Your task to perform on an android device: Search for usb-a on newegg.com, select the first entry, and add it to the cart. Image 0: 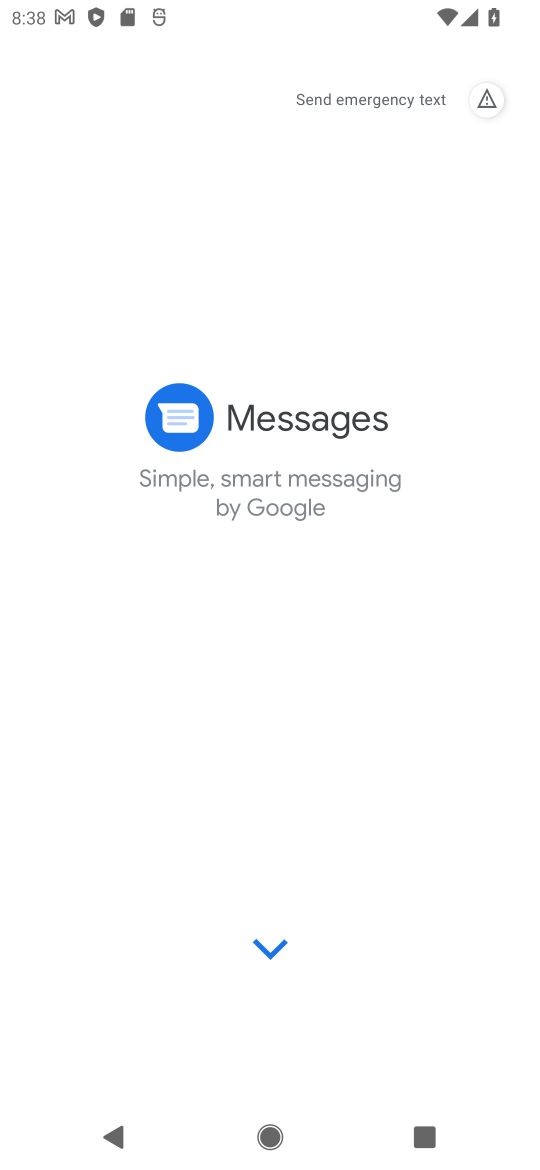
Step 0: press home button
Your task to perform on an android device: Search for usb-a on newegg.com, select the first entry, and add it to the cart. Image 1: 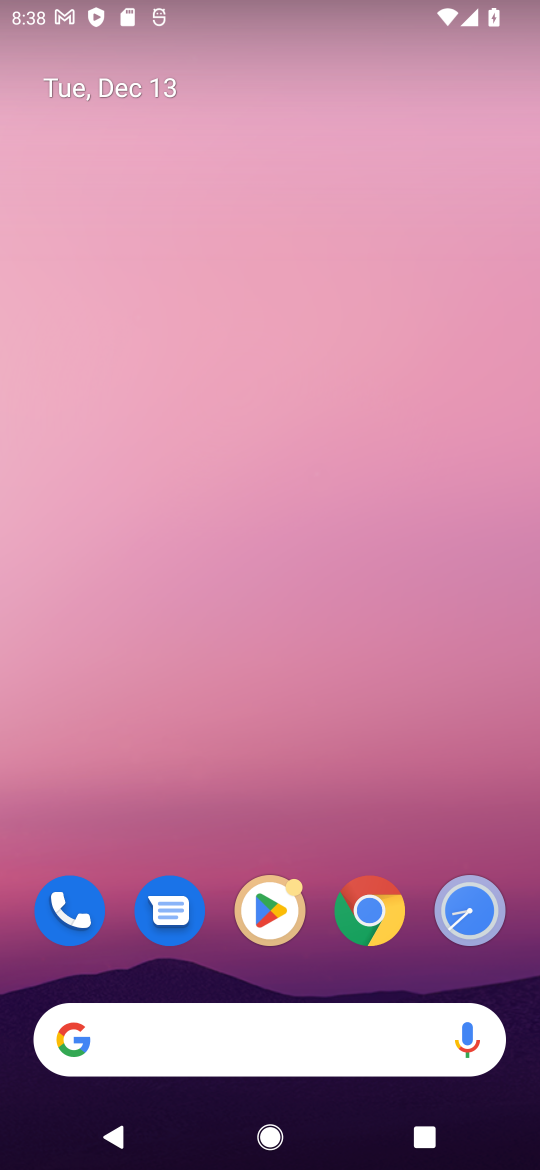
Step 1: drag from (199, 1048) to (192, 335)
Your task to perform on an android device: Search for usb-a on newegg.com, select the first entry, and add it to the cart. Image 2: 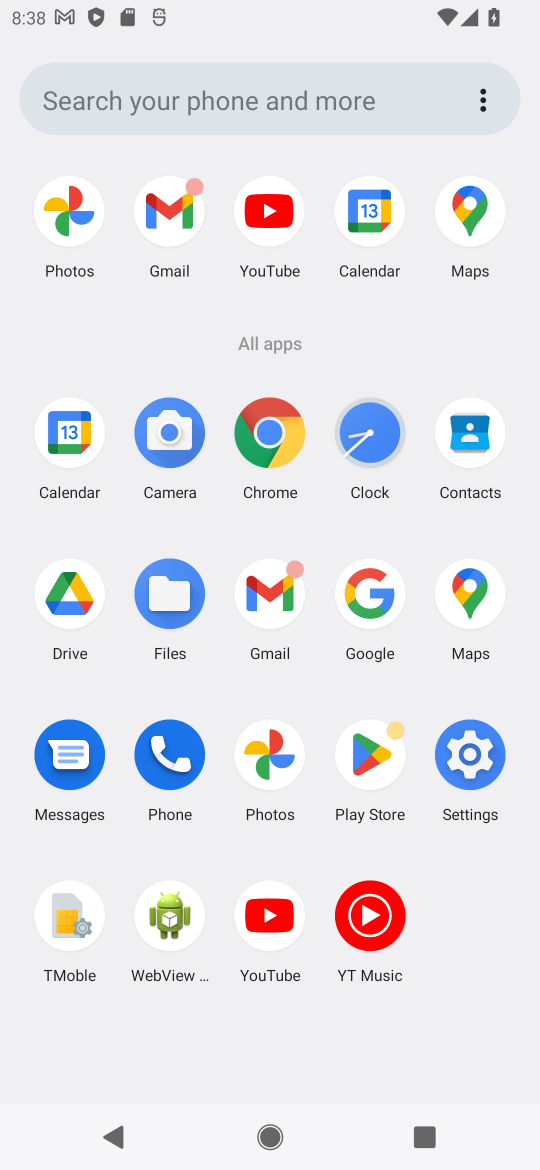
Step 2: click (360, 583)
Your task to perform on an android device: Search for usb-a on newegg.com, select the first entry, and add it to the cart. Image 3: 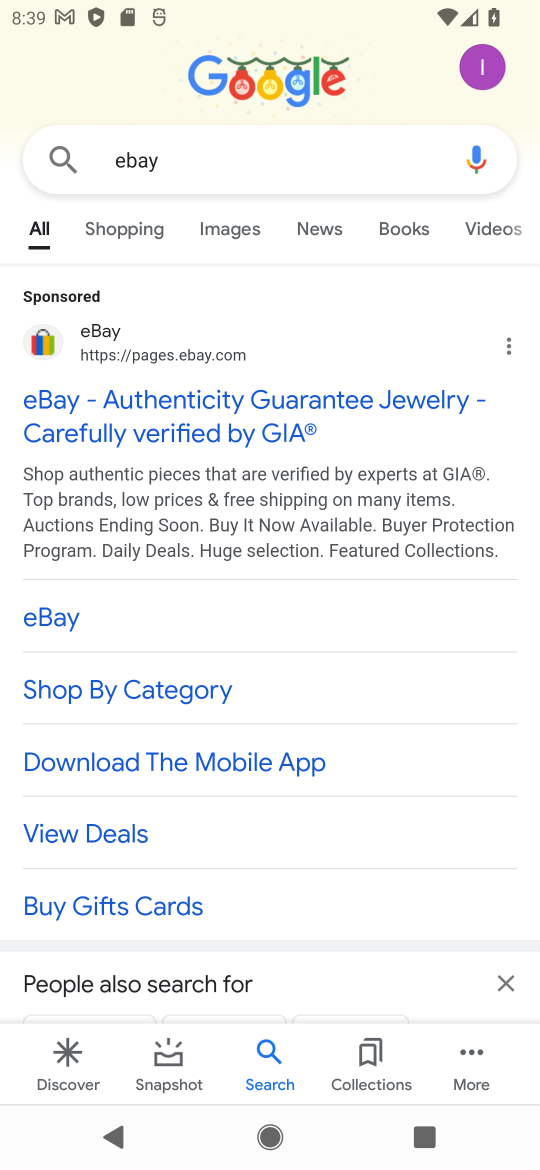
Step 3: click (121, 162)
Your task to perform on an android device: Search for usb-a on newegg.com, select the first entry, and add it to the cart. Image 4: 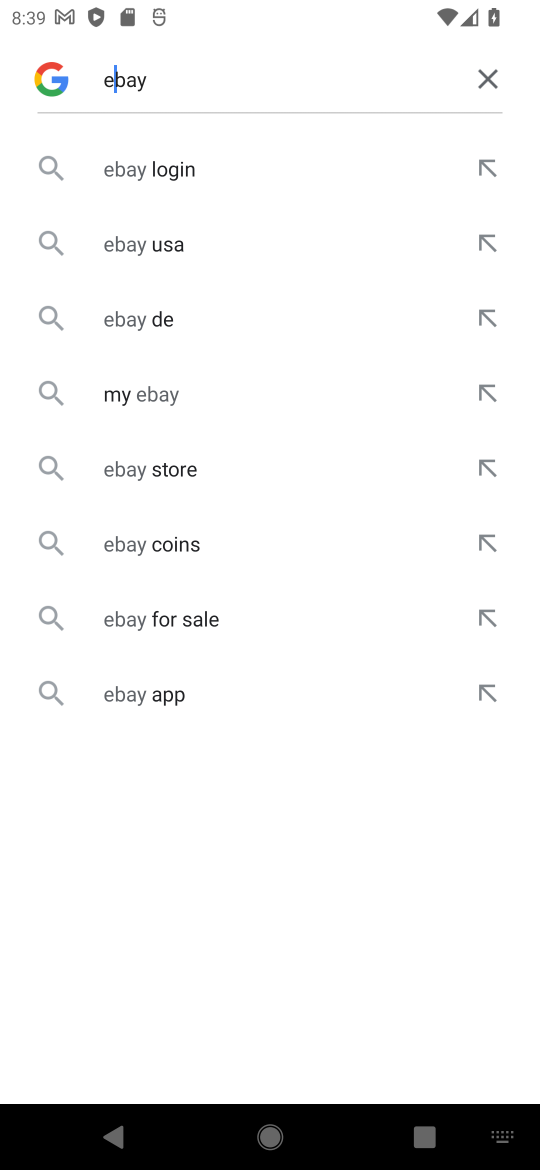
Step 4: click (498, 72)
Your task to perform on an android device: Search for usb-a on newegg.com, select the first entry, and add it to the cart. Image 5: 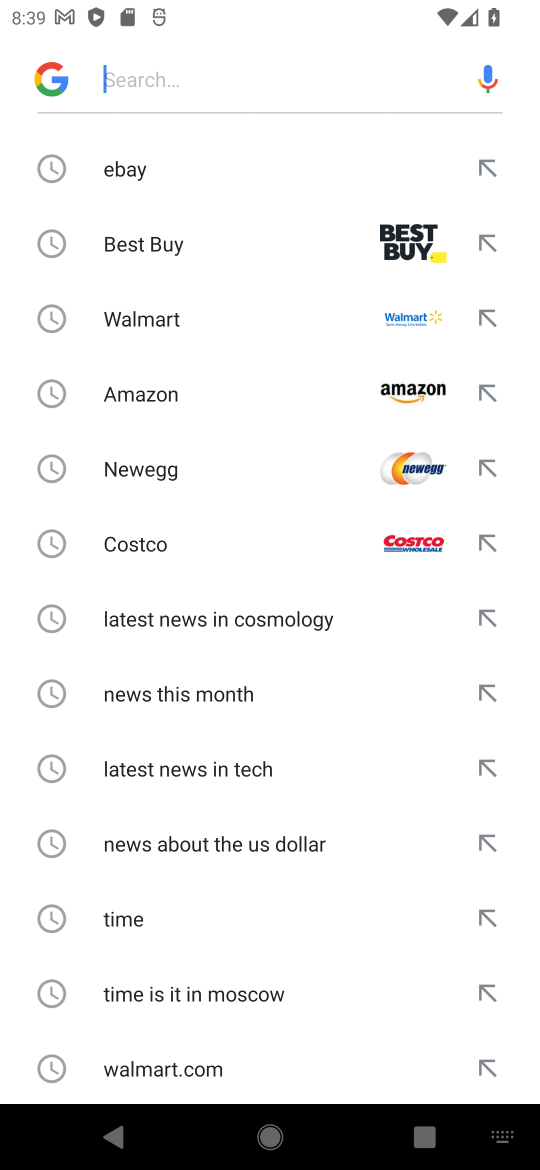
Step 5: click (161, 462)
Your task to perform on an android device: Search for usb-a on newegg.com, select the first entry, and add it to the cart. Image 6: 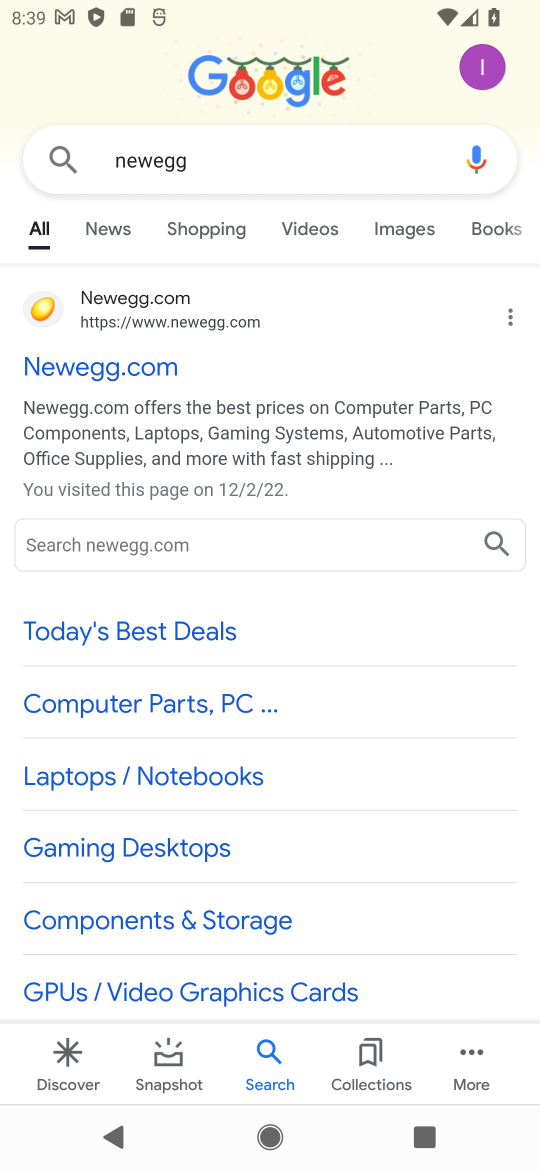
Step 6: click (76, 363)
Your task to perform on an android device: Search for usb-a on newegg.com, select the first entry, and add it to the cart. Image 7: 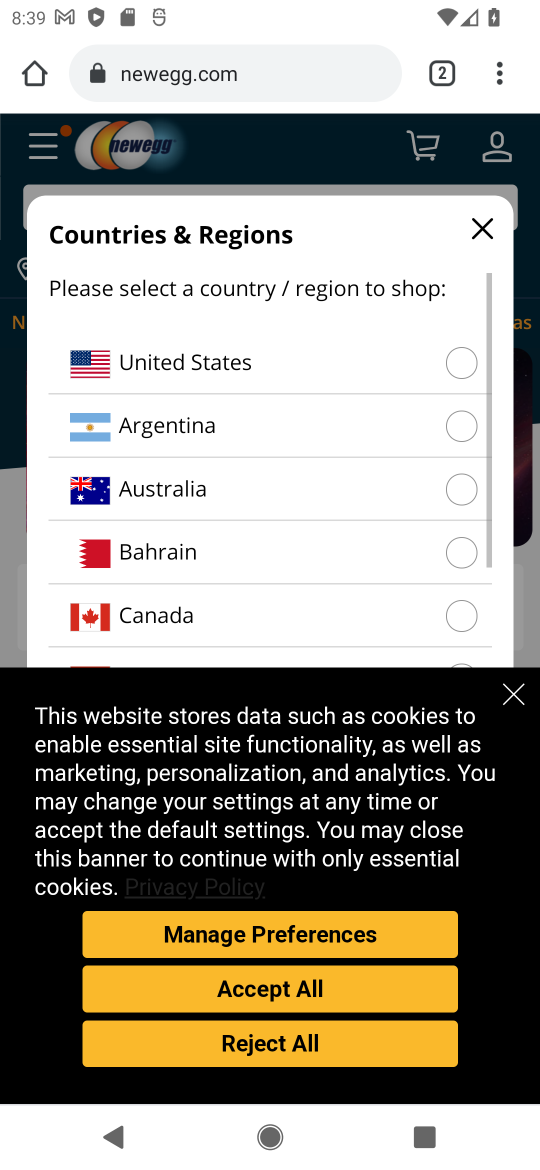
Step 7: click (476, 230)
Your task to perform on an android device: Search for usb-a on newegg.com, select the first entry, and add it to the cart. Image 8: 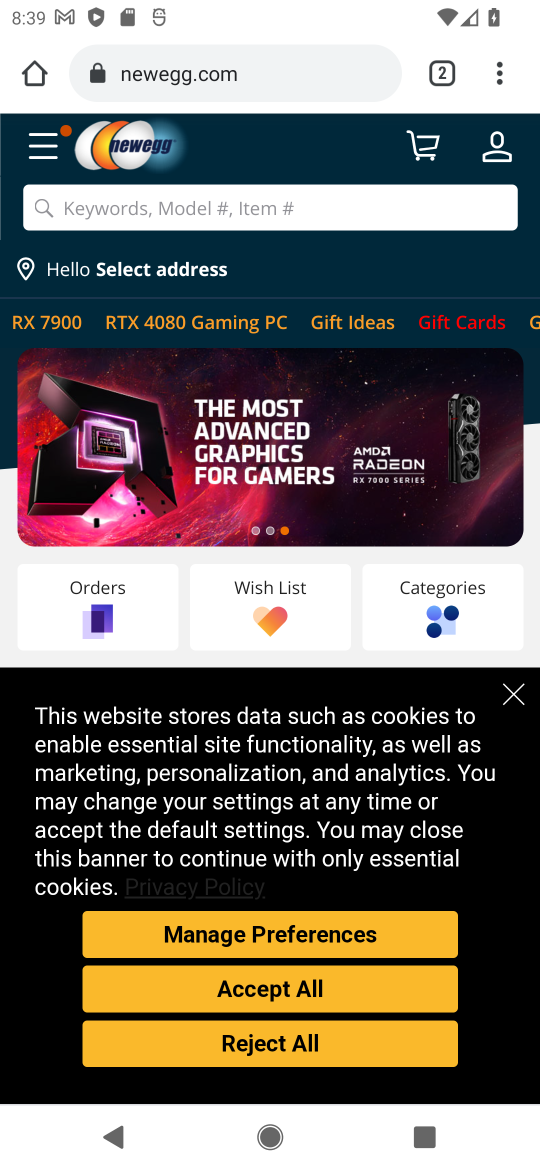
Step 8: click (135, 209)
Your task to perform on an android device: Search for usb-a on newegg.com, select the first entry, and add it to the cart. Image 9: 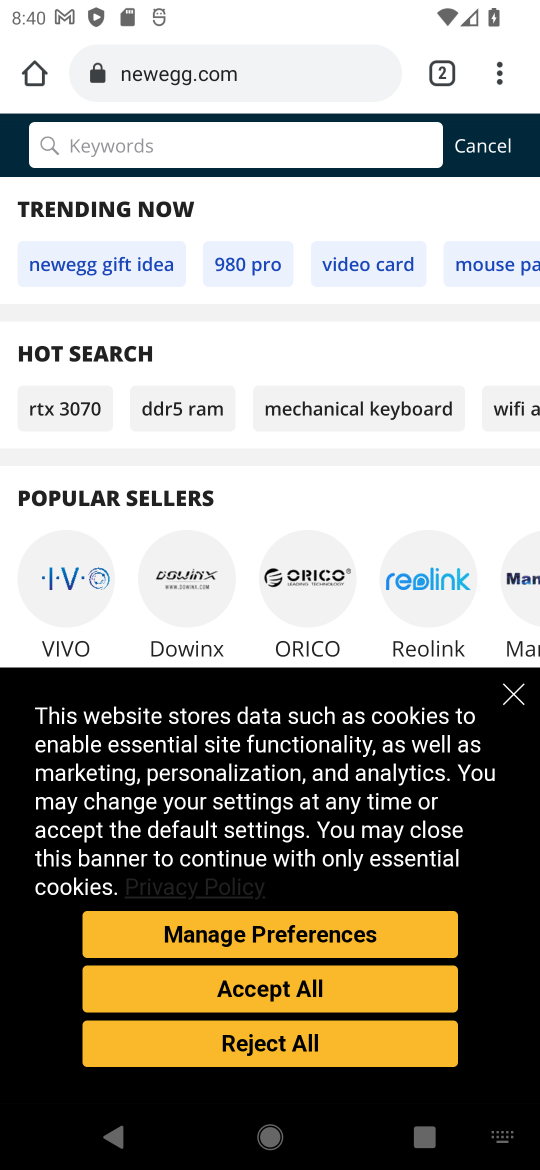
Step 9: type "usb-a"
Your task to perform on an android device: Search for usb-a on newegg.com, select the first entry, and add it to the cart. Image 10: 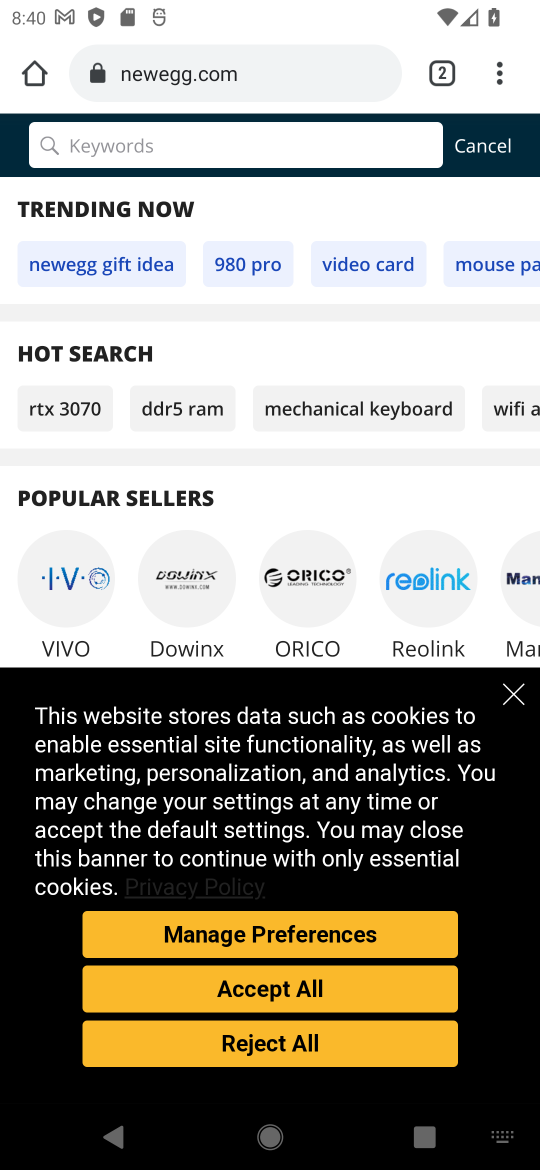
Step 10: click (47, 146)
Your task to perform on an android device: Search for usb-a on newegg.com, select the first entry, and add it to the cart. Image 11: 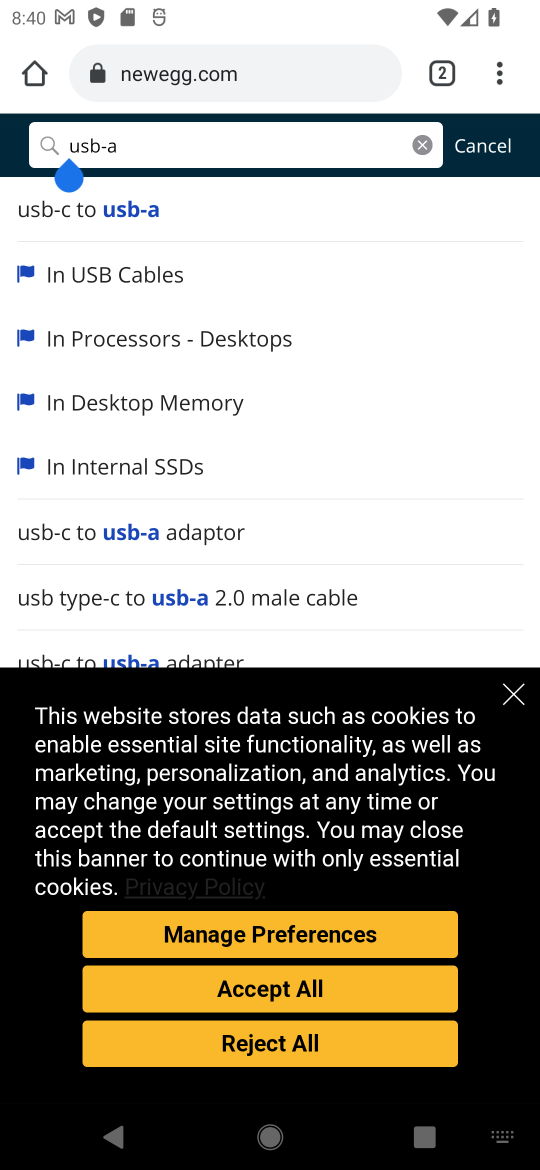
Step 11: click (119, 269)
Your task to perform on an android device: Search for usb-a on newegg.com, select the first entry, and add it to the cart. Image 12: 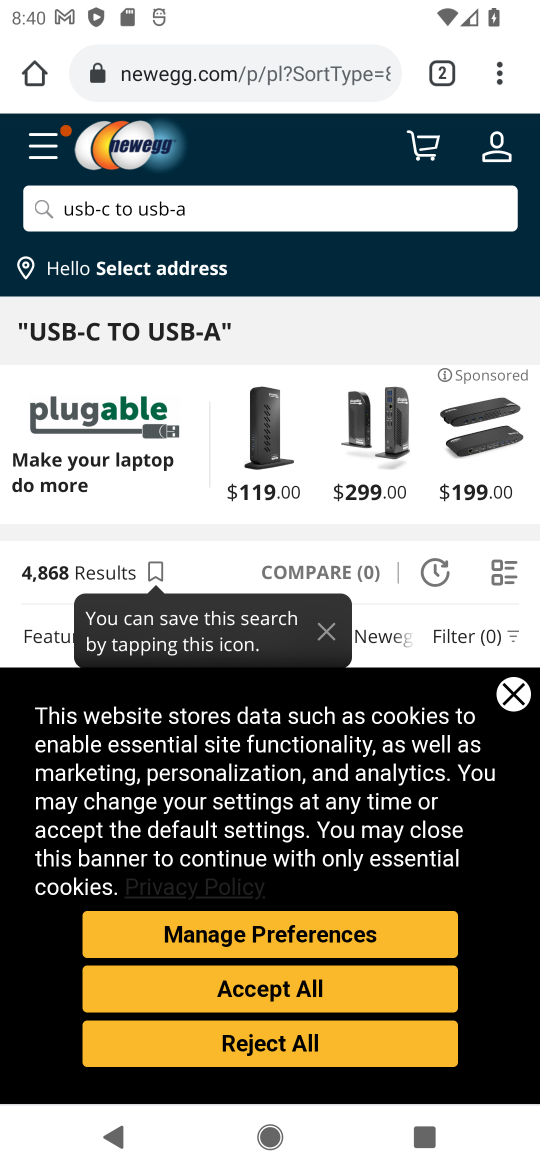
Step 12: drag from (158, 922) to (175, 566)
Your task to perform on an android device: Search for usb-a on newegg.com, select the first entry, and add it to the cart. Image 13: 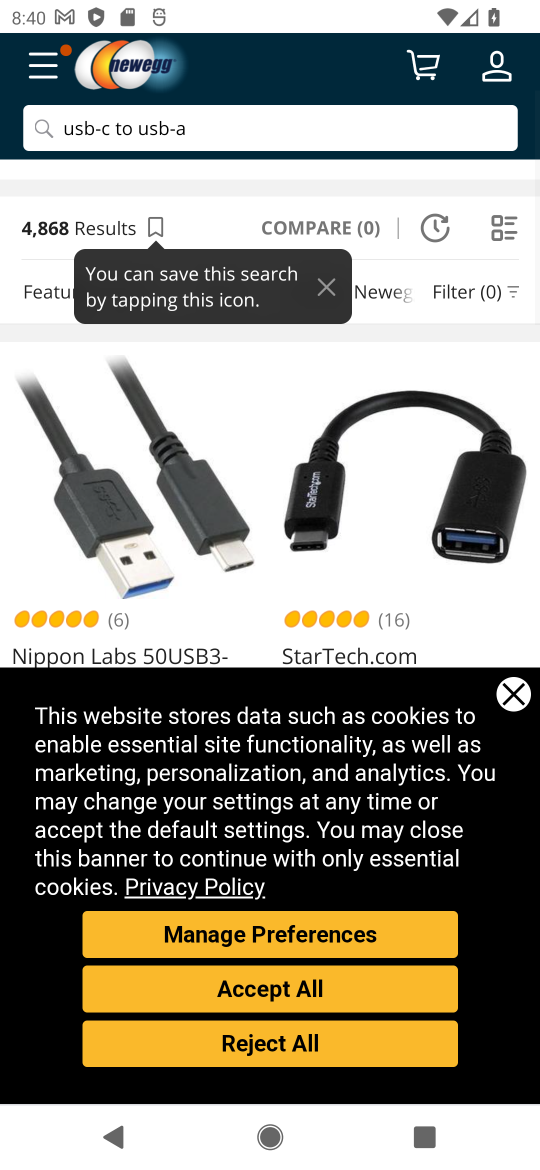
Step 13: click (509, 693)
Your task to perform on an android device: Search for usb-a on newegg.com, select the first entry, and add it to the cart. Image 14: 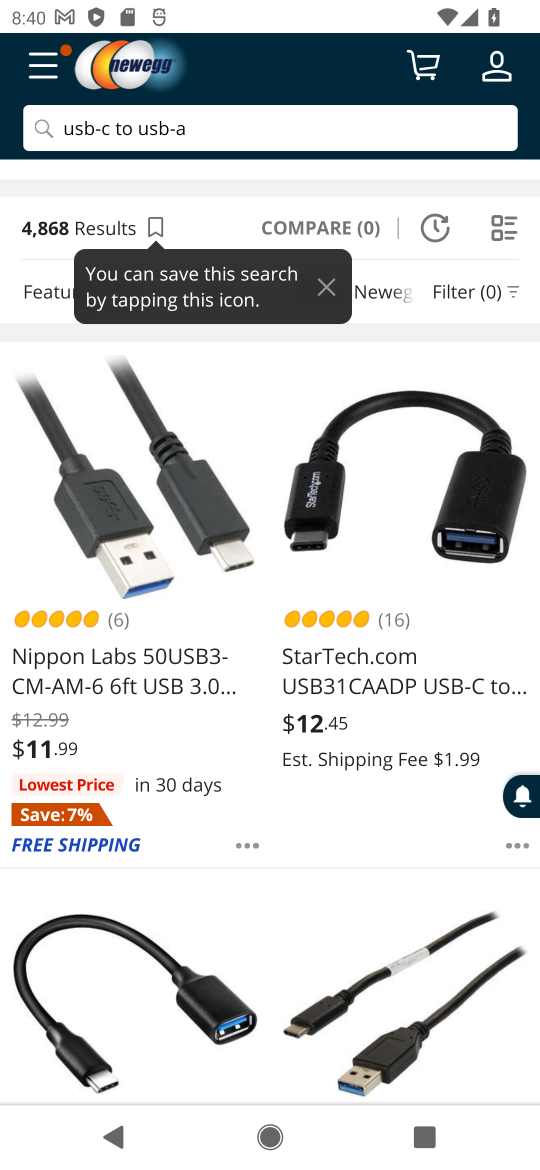
Step 14: click (133, 492)
Your task to perform on an android device: Search for usb-a on newegg.com, select the first entry, and add it to the cart. Image 15: 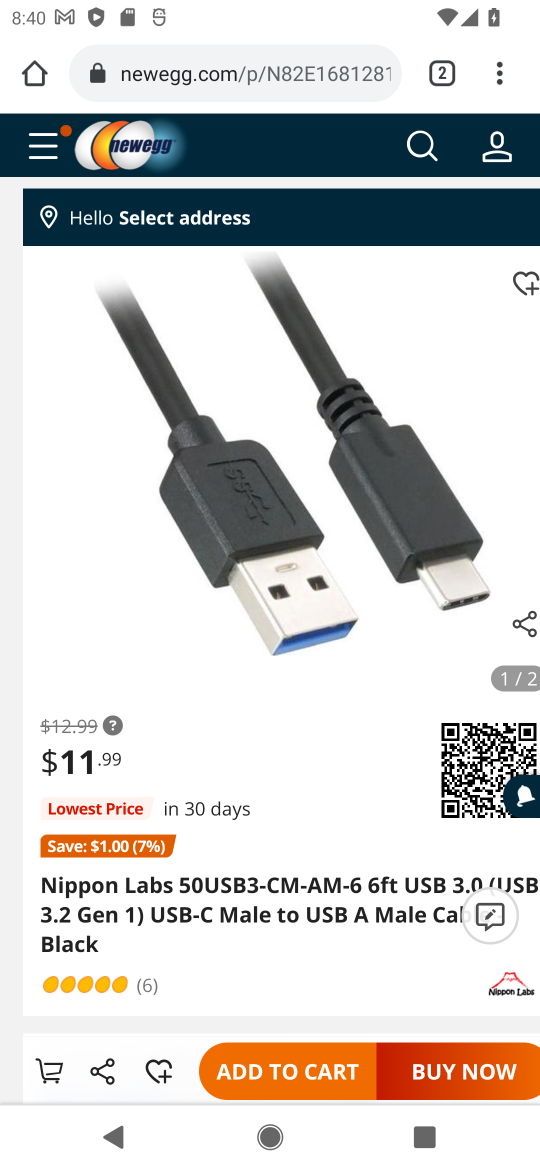
Step 15: click (299, 1064)
Your task to perform on an android device: Search for usb-a on newegg.com, select the first entry, and add it to the cart. Image 16: 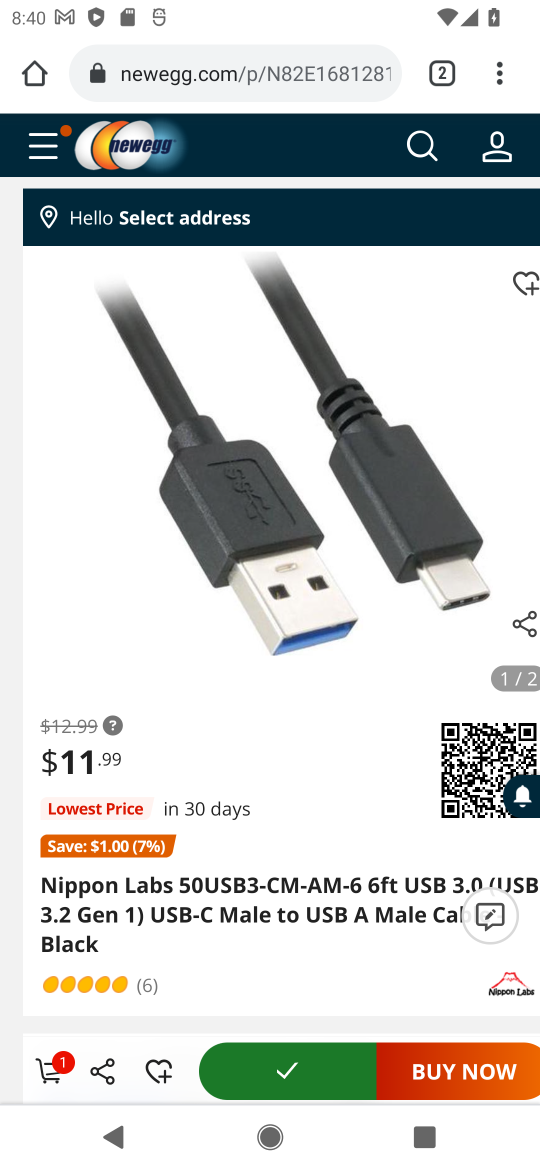
Step 16: task complete